Your task to perform on an android device: Open Maps and search for coffee Image 0: 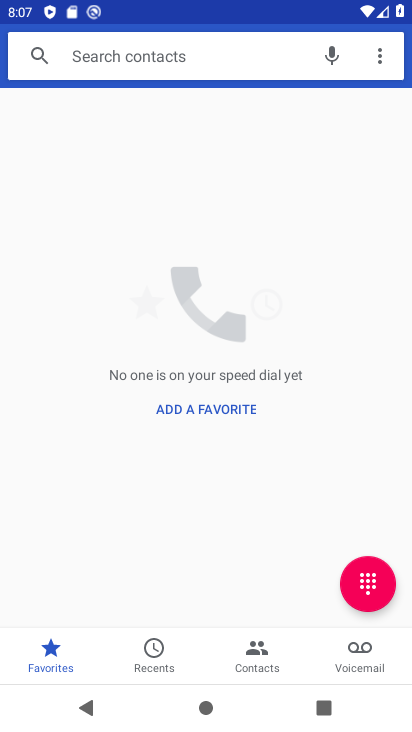
Step 0: press home button
Your task to perform on an android device: Open Maps and search for coffee Image 1: 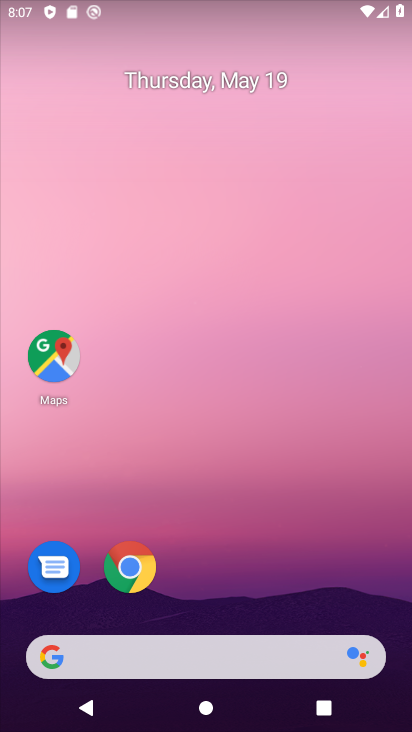
Step 1: click (63, 353)
Your task to perform on an android device: Open Maps and search for coffee Image 2: 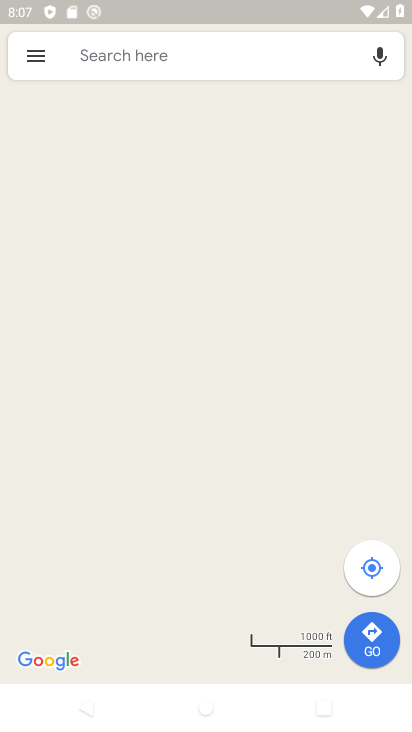
Step 2: click (148, 65)
Your task to perform on an android device: Open Maps and search for coffee Image 3: 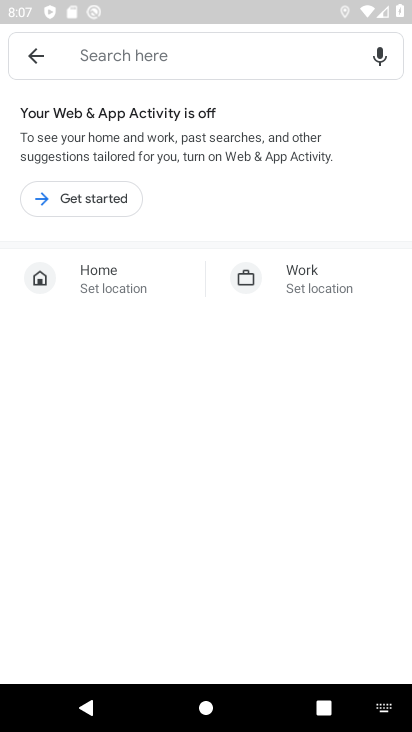
Step 3: type "coffee"
Your task to perform on an android device: Open Maps and search for coffee Image 4: 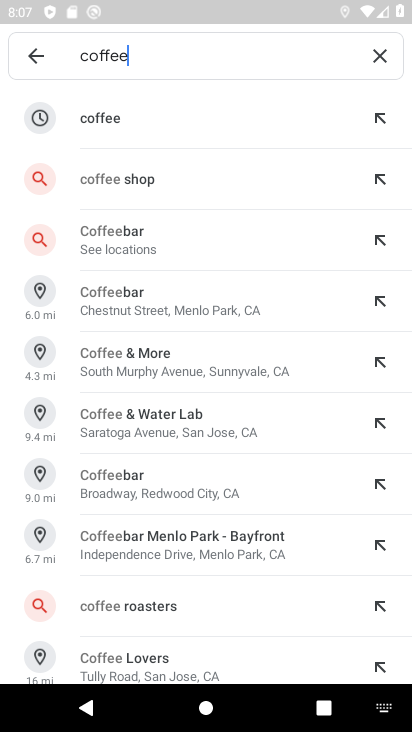
Step 4: click (191, 125)
Your task to perform on an android device: Open Maps and search for coffee Image 5: 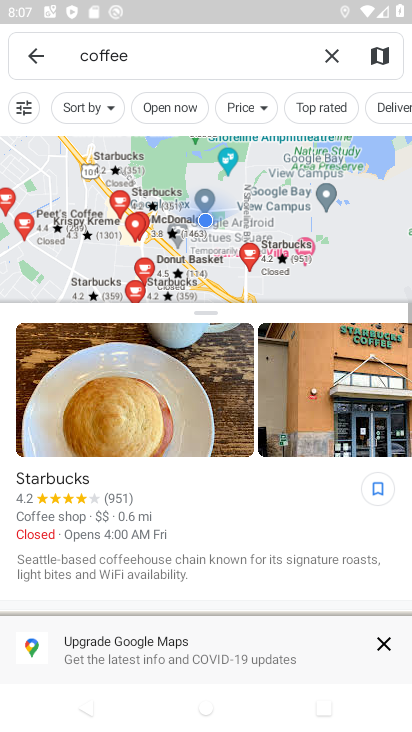
Step 5: task complete